Your task to perform on an android device: open chrome privacy settings Image 0: 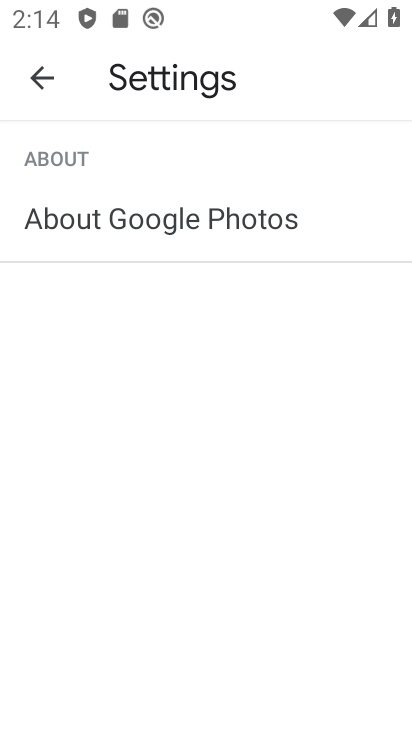
Step 0: press back button
Your task to perform on an android device: open chrome privacy settings Image 1: 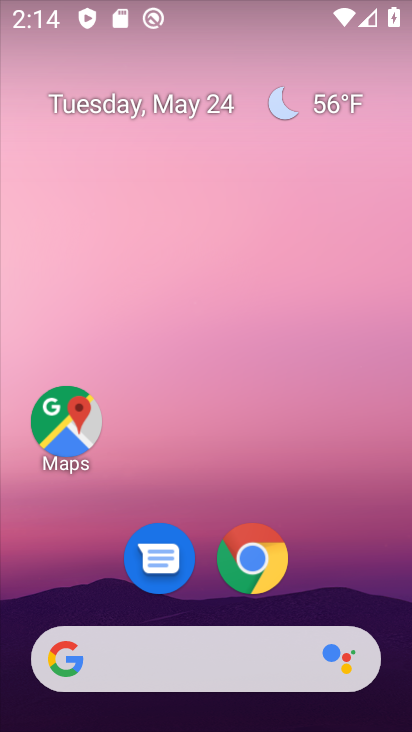
Step 1: click (260, 561)
Your task to perform on an android device: open chrome privacy settings Image 2: 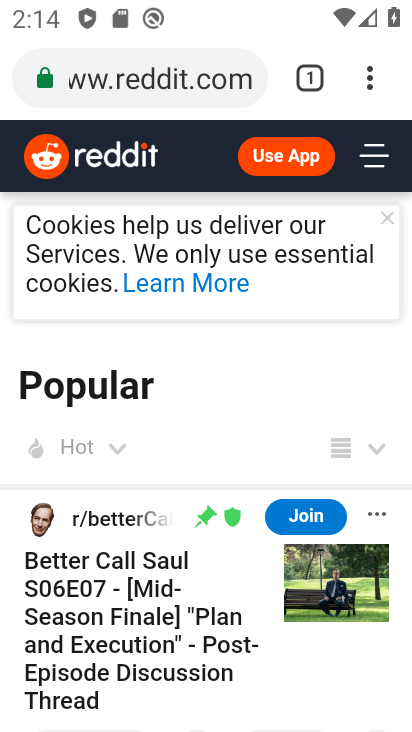
Step 2: drag from (377, 87) to (233, 639)
Your task to perform on an android device: open chrome privacy settings Image 3: 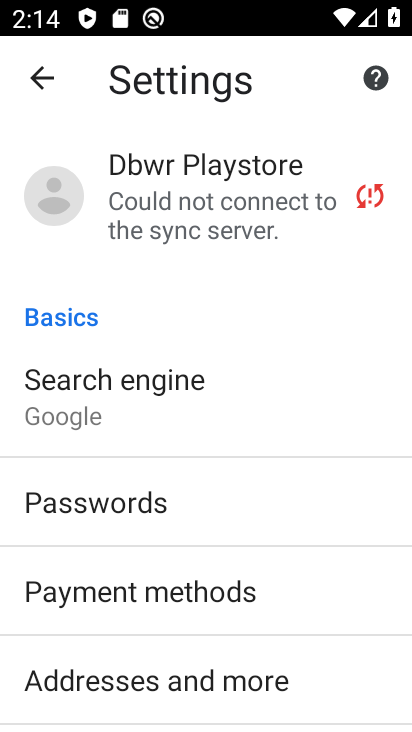
Step 3: drag from (153, 682) to (241, 255)
Your task to perform on an android device: open chrome privacy settings Image 4: 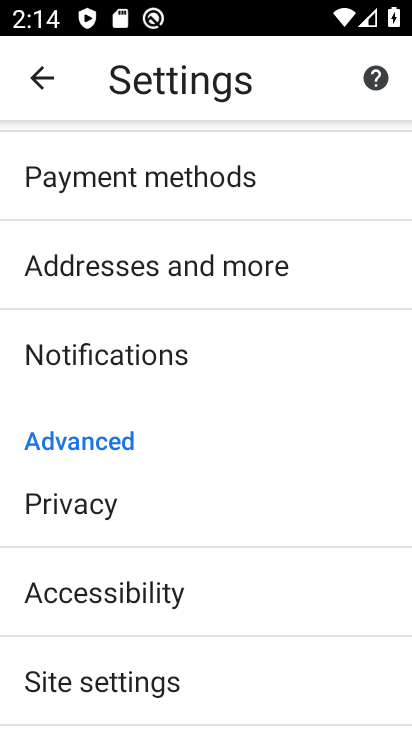
Step 4: click (153, 520)
Your task to perform on an android device: open chrome privacy settings Image 5: 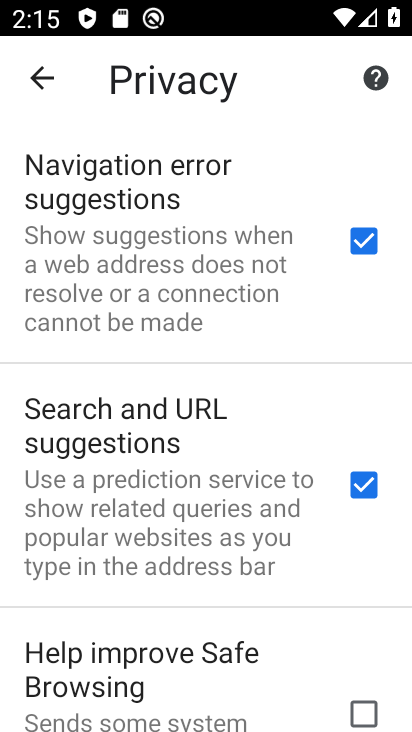
Step 5: task complete